Your task to perform on an android device: check google app version Image 0: 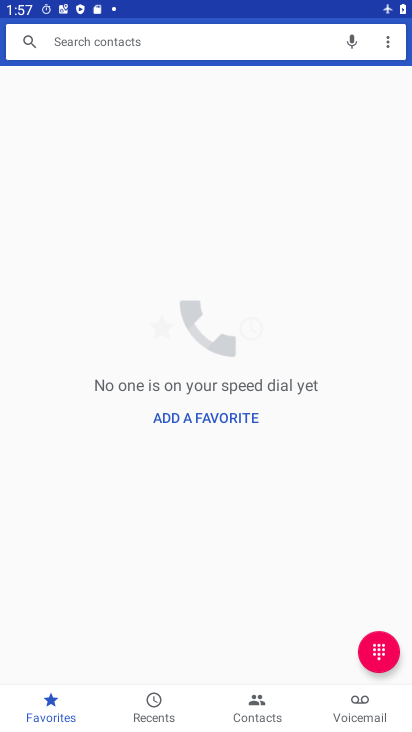
Step 0: press home button
Your task to perform on an android device: check google app version Image 1: 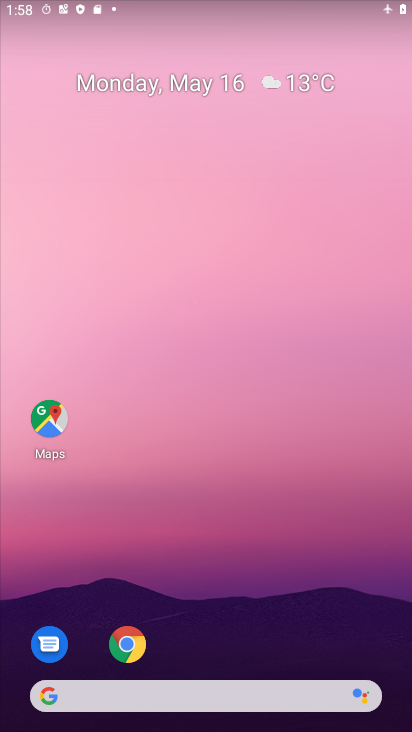
Step 1: drag from (220, 694) to (285, 6)
Your task to perform on an android device: check google app version Image 2: 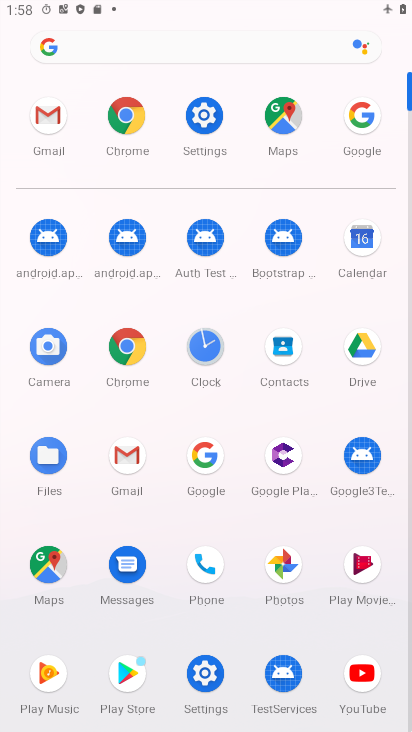
Step 2: click (206, 470)
Your task to perform on an android device: check google app version Image 3: 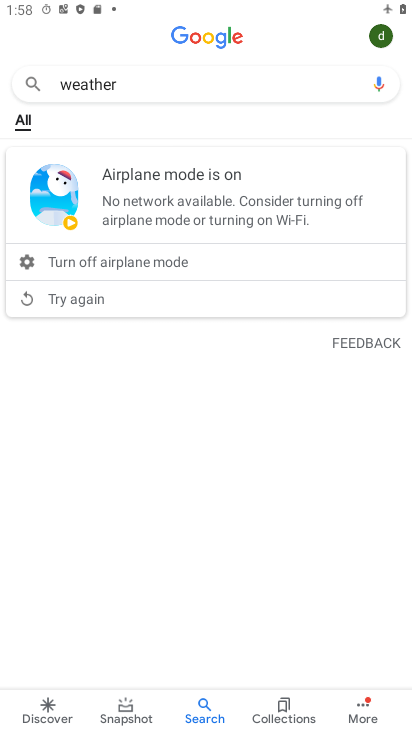
Step 3: click (365, 715)
Your task to perform on an android device: check google app version Image 4: 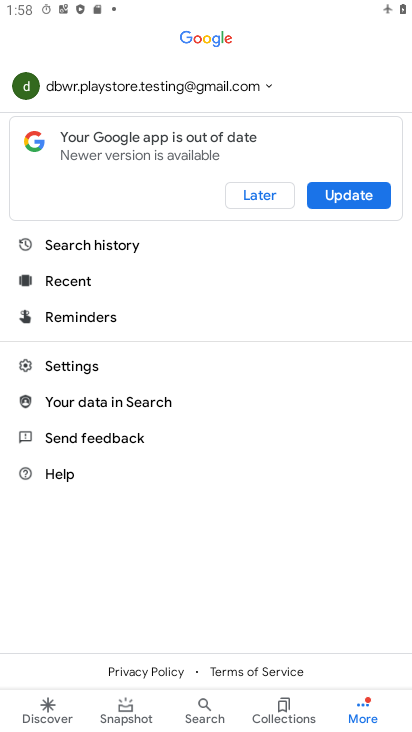
Step 4: click (77, 365)
Your task to perform on an android device: check google app version Image 5: 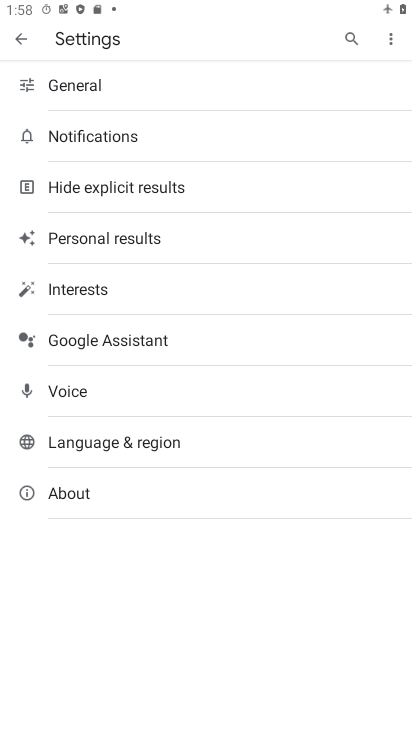
Step 5: click (115, 495)
Your task to perform on an android device: check google app version Image 6: 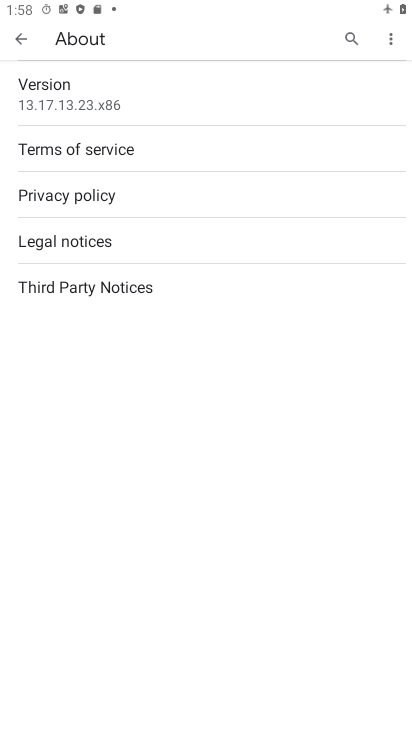
Step 6: task complete